Your task to perform on an android device: turn on airplane mode Image 0: 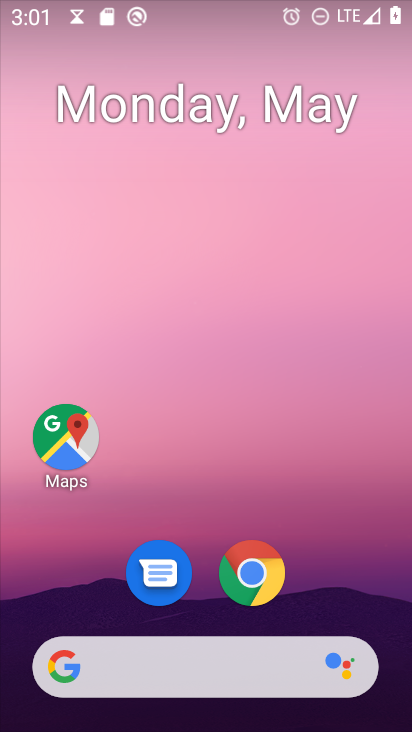
Step 0: drag from (319, 659) to (409, 2)
Your task to perform on an android device: turn on airplane mode Image 1: 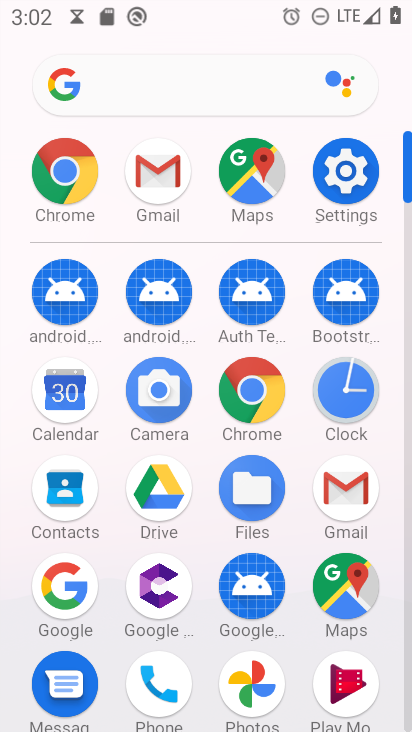
Step 1: click (321, 178)
Your task to perform on an android device: turn on airplane mode Image 2: 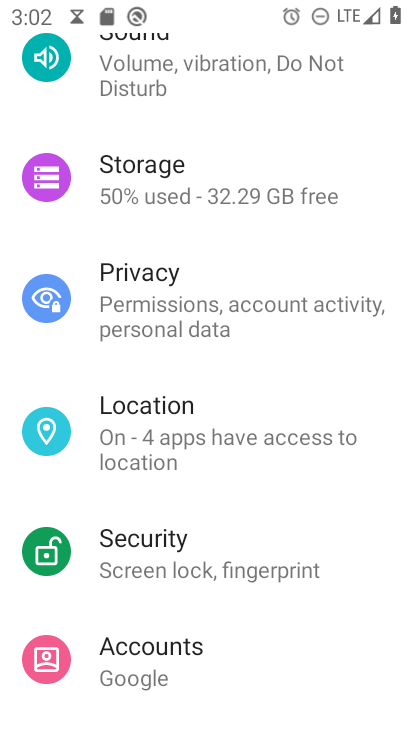
Step 2: drag from (326, 233) to (372, 656)
Your task to perform on an android device: turn on airplane mode Image 3: 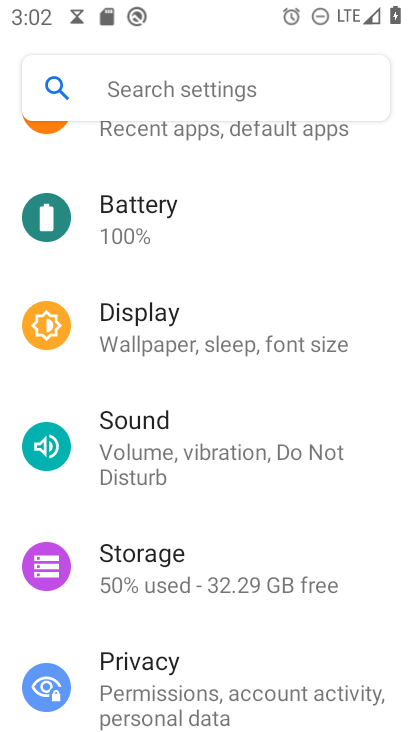
Step 3: drag from (288, 263) to (334, 731)
Your task to perform on an android device: turn on airplane mode Image 4: 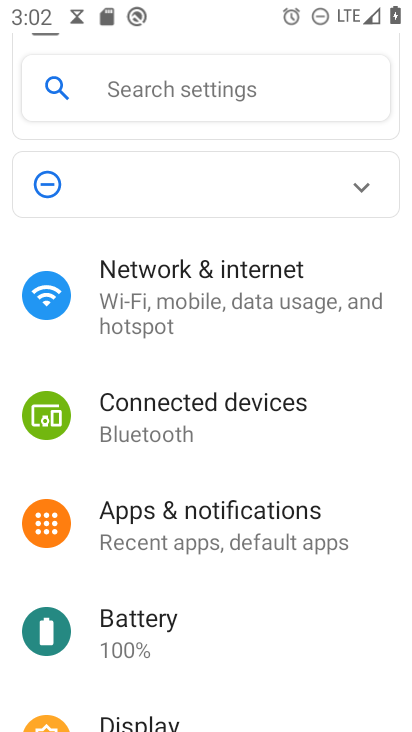
Step 4: click (225, 299)
Your task to perform on an android device: turn on airplane mode Image 5: 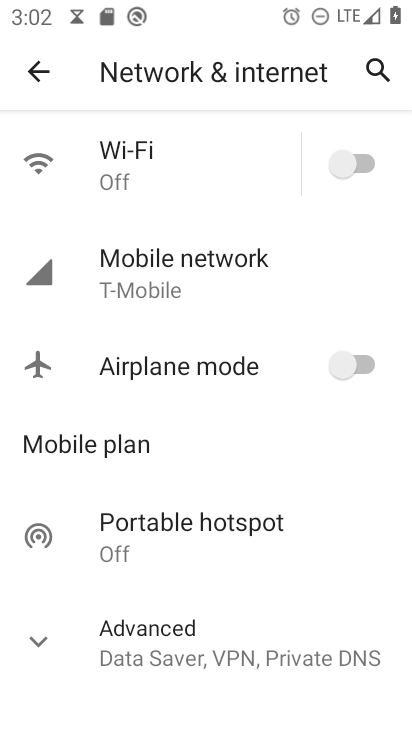
Step 5: click (360, 369)
Your task to perform on an android device: turn on airplane mode Image 6: 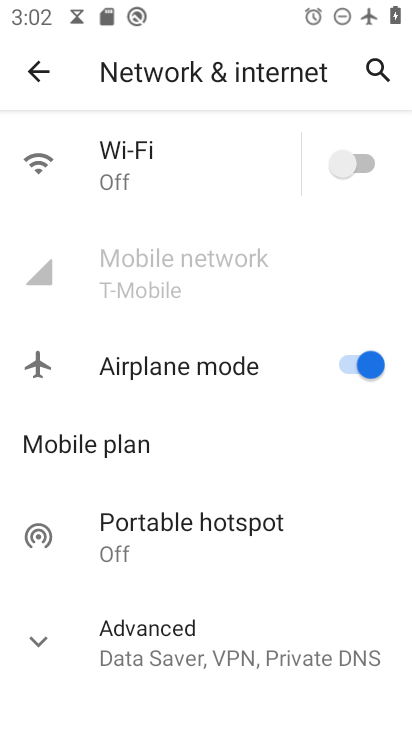
Step 6: task complete